Your task to perform on an android device: toggle improve location accuracy Image 0: 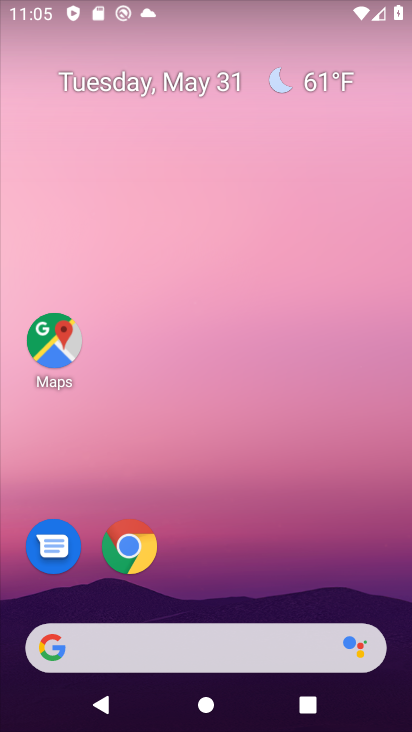
Step 0: drag from (201, 630) to (302, 0)
Your task to perform on an android device: toggle improve location accuracy Image 1: 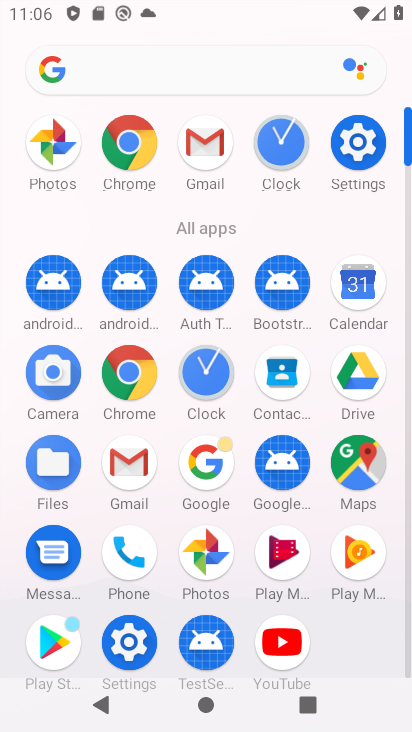
Step 1: click (106, 485)
Your task to perform on an android device: toggle improve location accuracy Image 2: 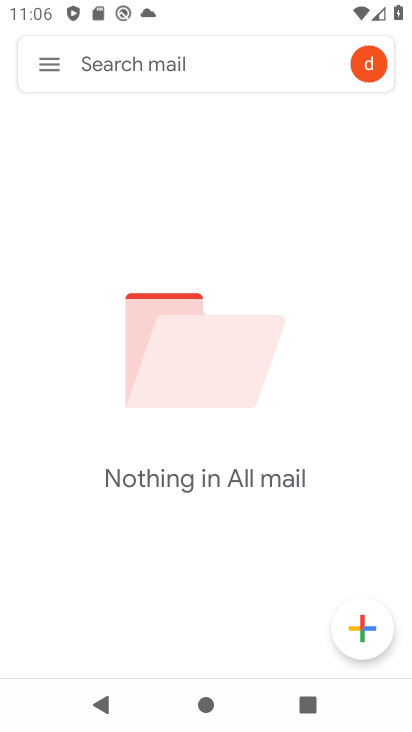
Step 2: press home button
Your task to perform on an android device: toggle improve location accuracy Image 3: 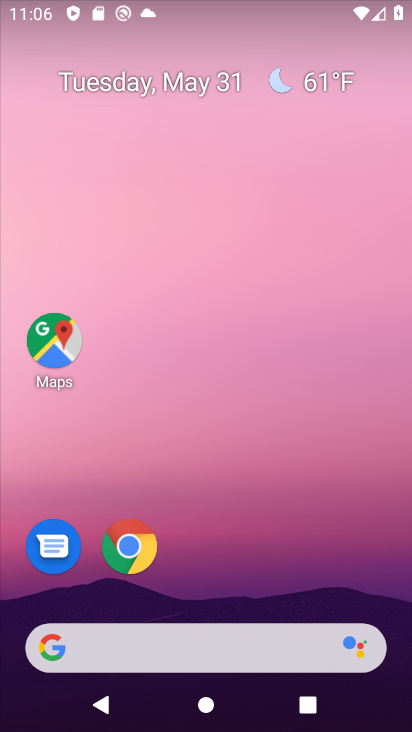
Step 3: drag from (196, 594) to (279, 7)
Your task to perform on an android device: toggle improve location accuracy Image 4: 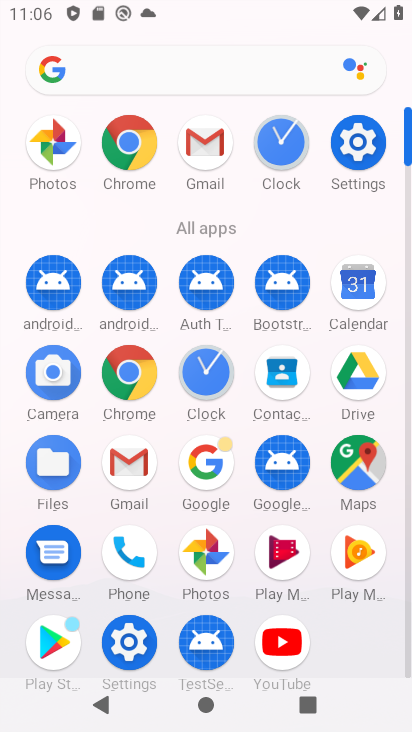
Step 4: click (140, 650)
Your task to perform on an android device: toggle improve location accuracy Image 5: 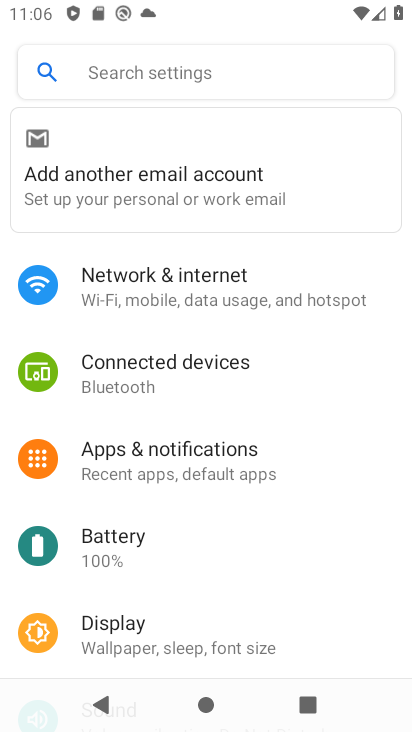
Step 5: drag from (273, 595) to (229, 77)
Your task to perform on an android device: toggle improve location accuracy Image 6: 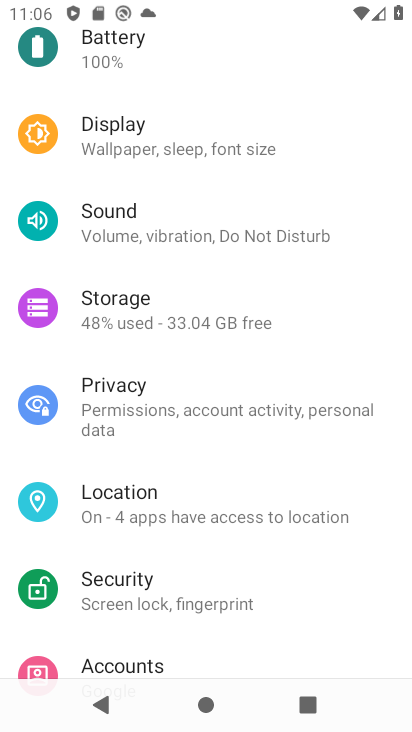
Step 6: click (99, 491)
Your task to perform on an android device: toggle improve location accuracy Image 7: 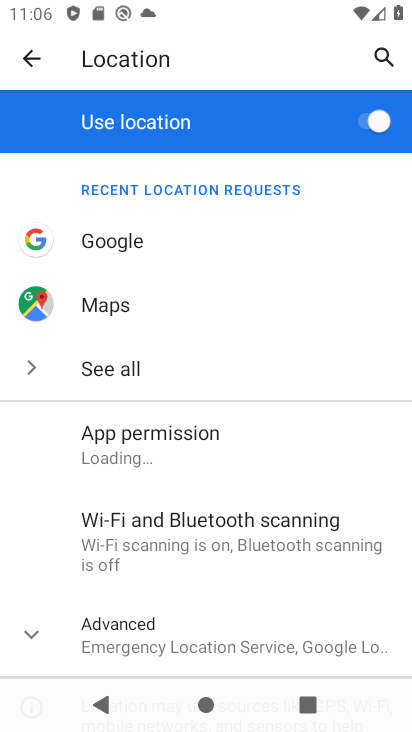
Step 7: click (147, 620)
Your task to perform on an android device: toggle improve location accuracy Image 8: 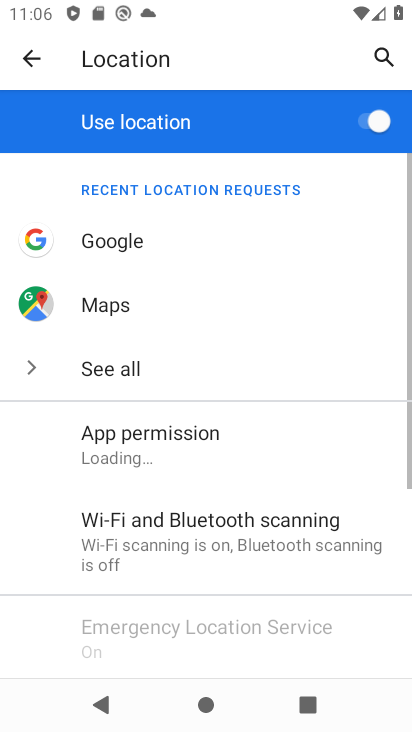
Step 8: drag from (147, 620) to (75, 149)
Your task to perform on an android device: toggle improve location accuracy Image 9: 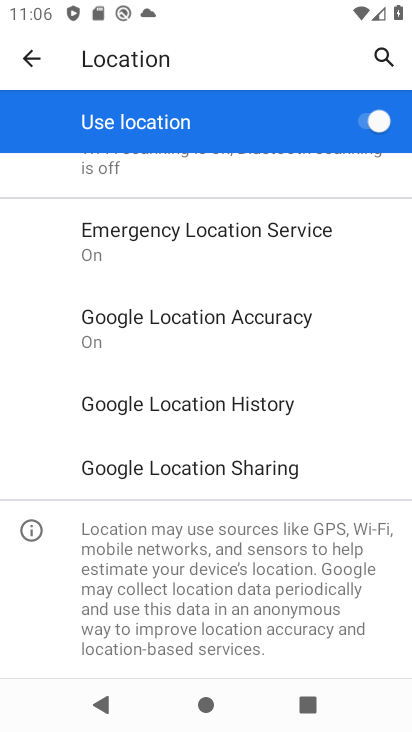
Step 9: click (189, 323)
Your task to perform on an android device: toggle improve location accuracy Image 10: 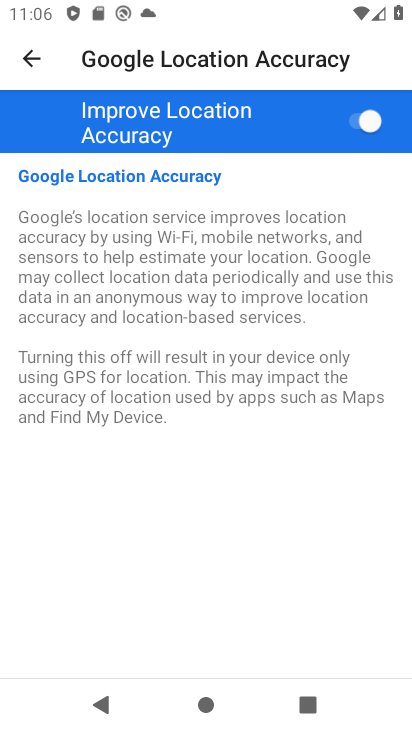
Step 10: click (366, 137)
Your task to perform on an android device: toggle improve location accuracy Image 11: 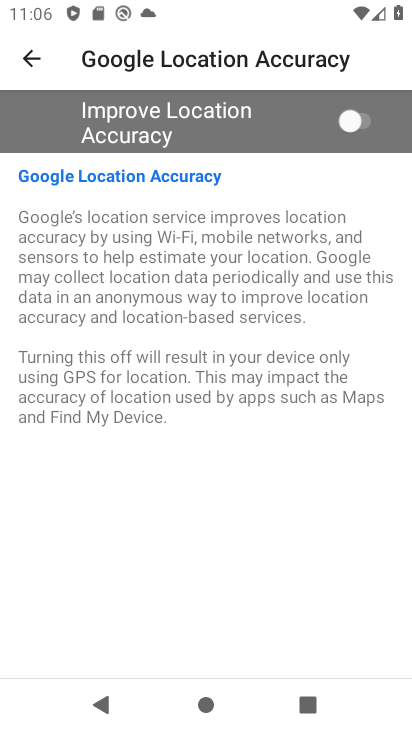
Step 11: task complete